Your task to perform on an android device: Open the phone app and click the voicemail tab. Image 0: 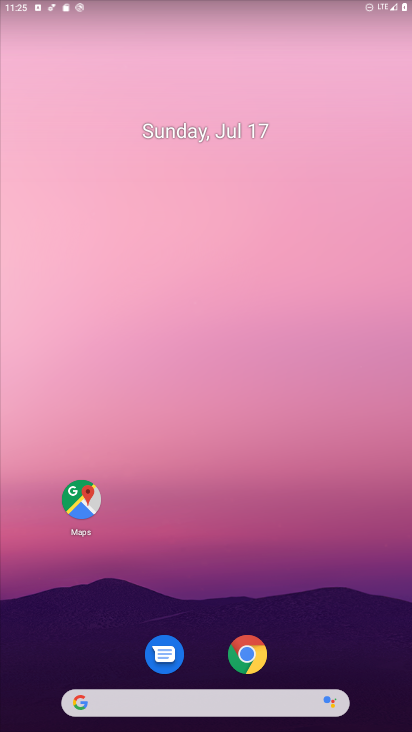
Step 0: drag from (203, 630) to (233, 139)
Your task to perform on an android device: Open the phone app and click the voicemail tab. Image 1: 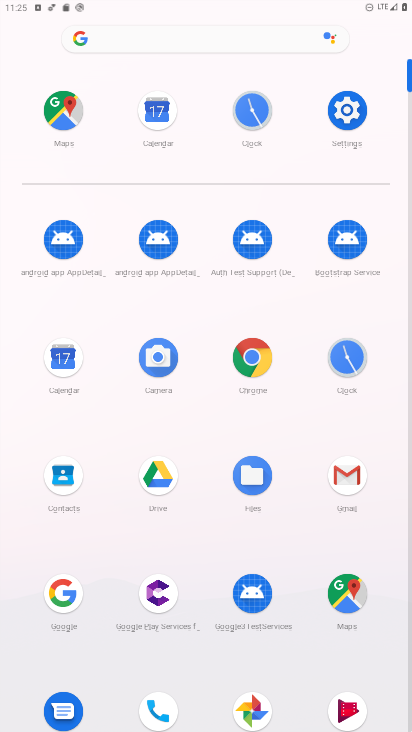
Step 1: click (154, 708)
Your task to perform on an android device: Open the phone app and click the voicemail tab. Image 2: 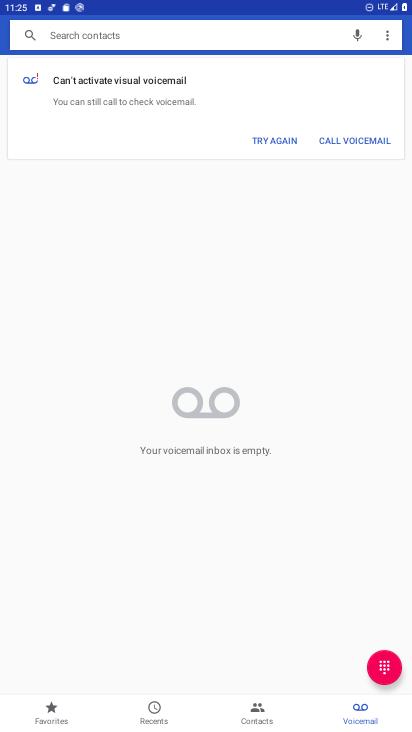
Step 2: click (353, 712)
Your task to perform on an android device: Open the phone app and click the voicemail tab. Image 3: 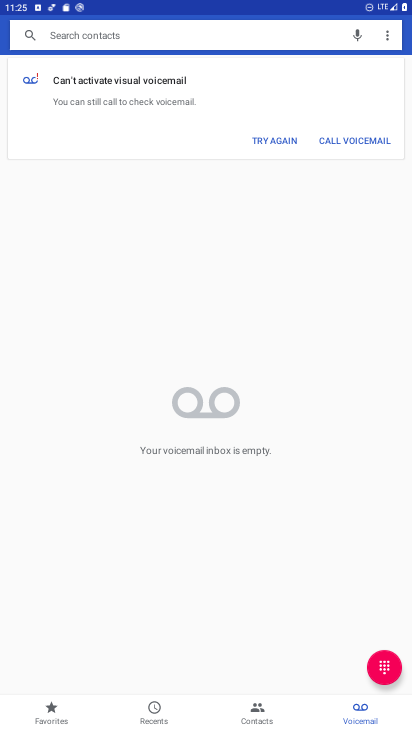
Step 3: task complete